Your task to perform on an android device: toggle wifi Image 0: 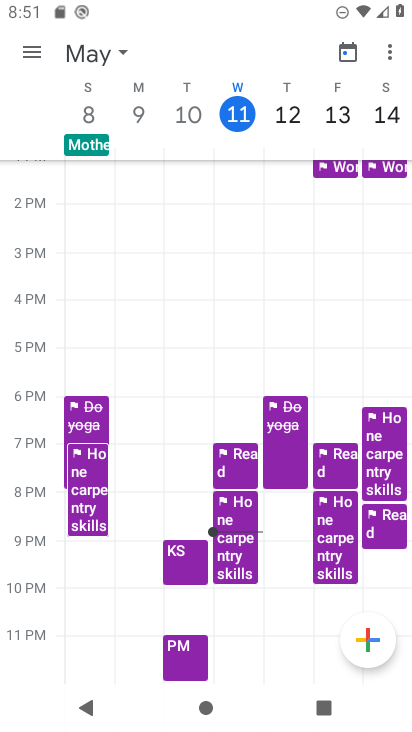
Step 0: press home button
Your task to perform on an android device: toggle wifi Image 1: 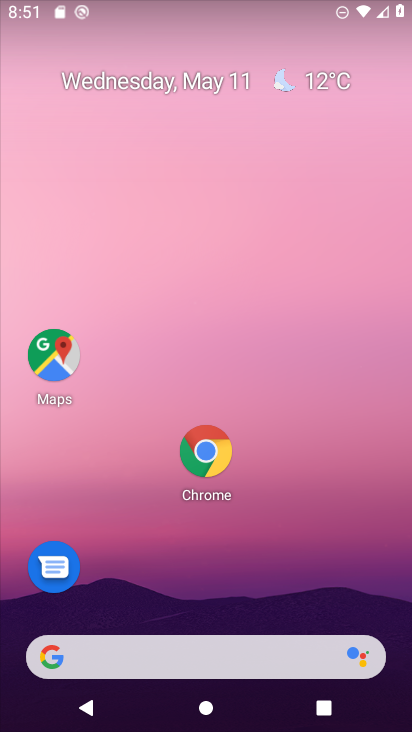
Step 1: drag from (189, 647) to (256, 194)
Your task to perform on an android device: toggle wifi Image 2: 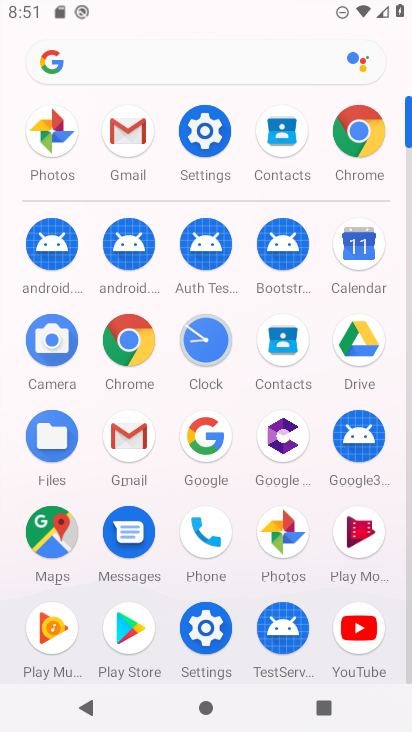
Step 2: click (209, 133)
Your task to perform on an android device: toggle wifi Image 3: 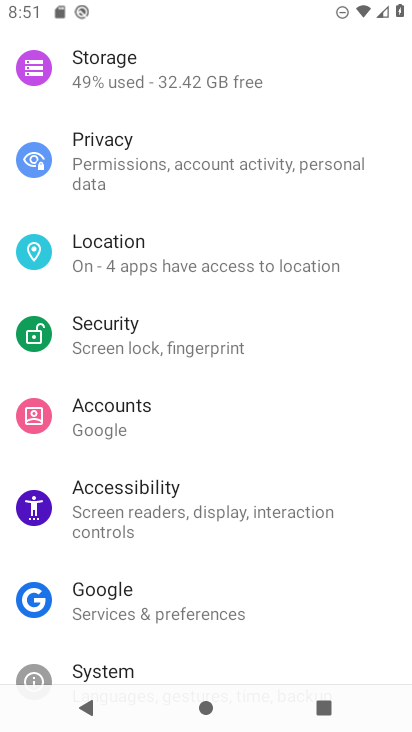
Step 3: drag from (298, 90) to (213, 386)
Your task to perform on an android device: toggle wifi Image 4: 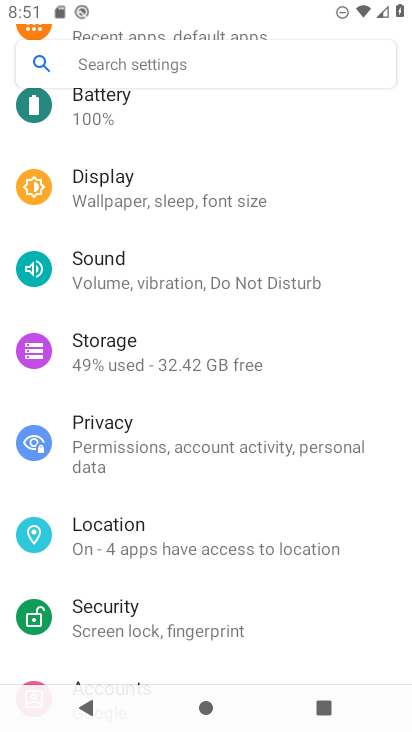
Step 4: drag from (273, 138) to (188, 482)
Your task to perform on an android device: toggle wifi Image 5: 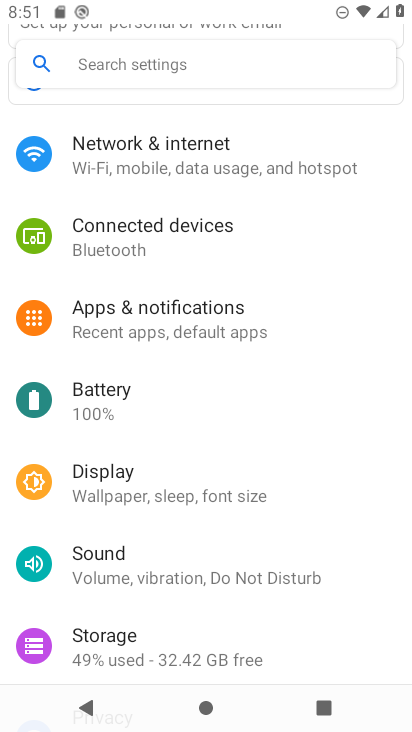
Step 5: click (199, 145)
Your task to perform on an android device: toggle wifi Image 6: 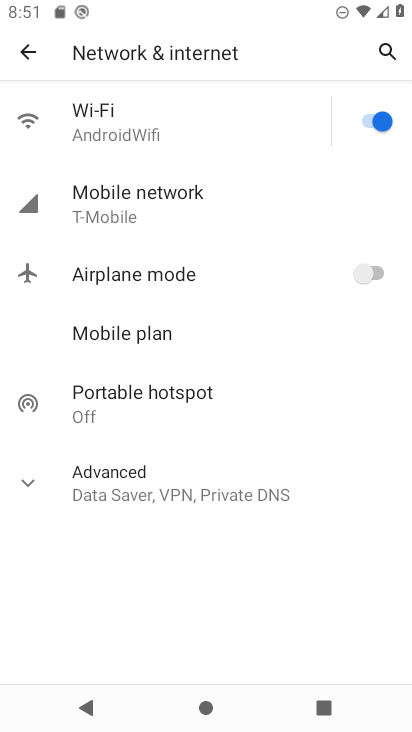
Step 6: click (367, 121)
Your task to perform on an android device: toggle wifi Image 7: 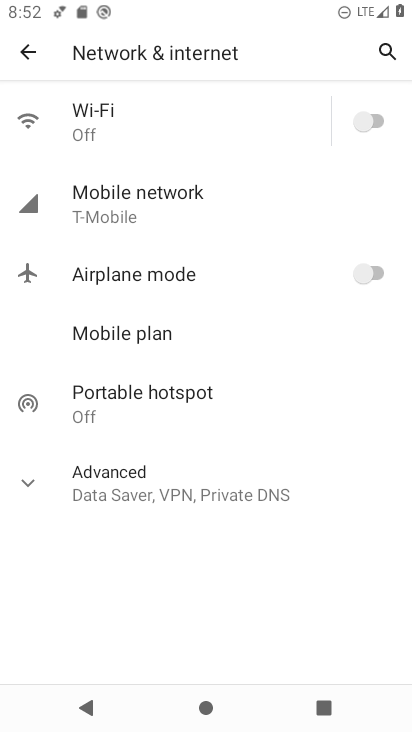
Step 7: task complete